Your task to perform on an android device: toggle improve location accuracy Image 0: 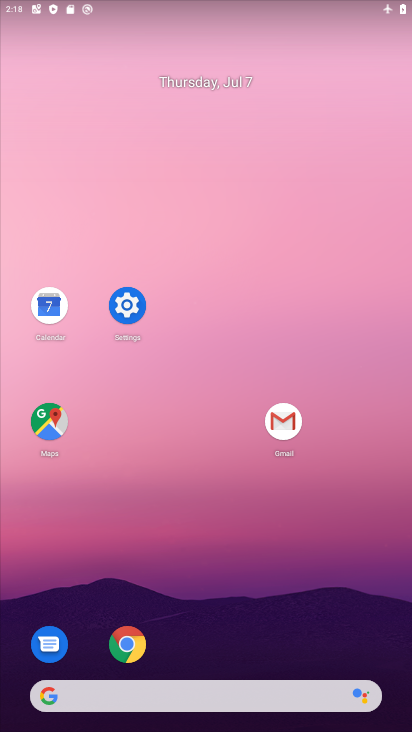
Step 0: drag from (403, 388) to (357, 137)
Your task to perform on an android device: toggle improve location accuracy Image 1: 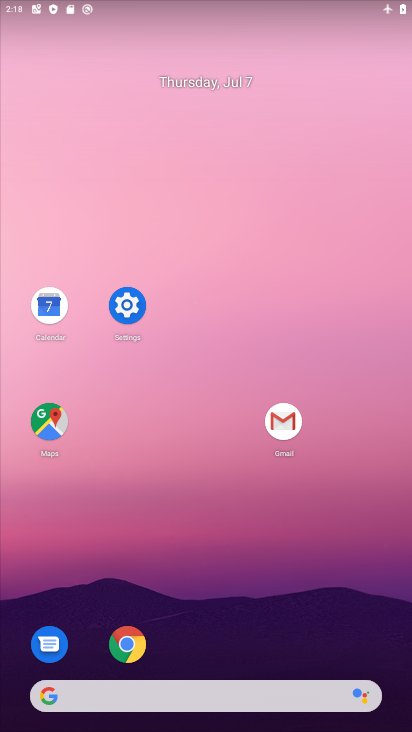
Step 1: click (137, 308)
Your task to perform on an android device: toggle improve location accuracy Image 2: 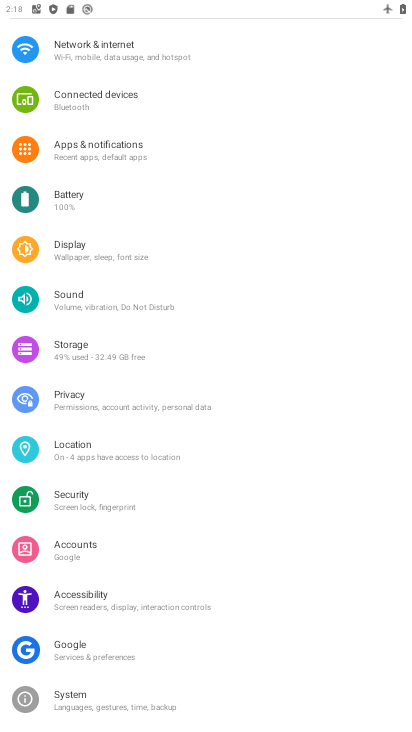
Step 2: click (86, 446)
Your task to perform on an android device: toggle improve location accuracy Image 3: 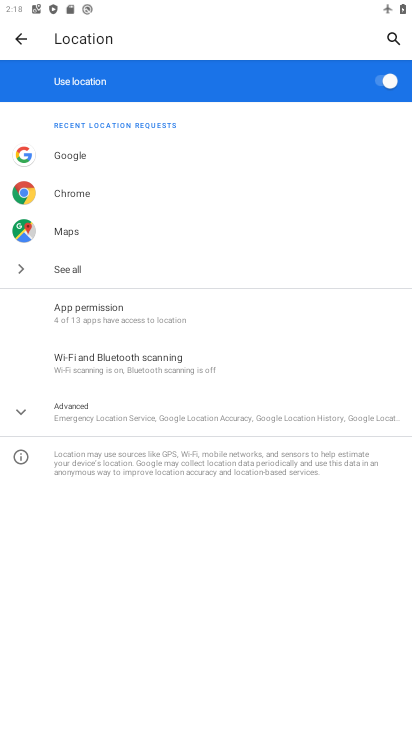
Step 3: click (33, 413)
Your task to perform on an android device: toggle improve location accuracy Image 4: 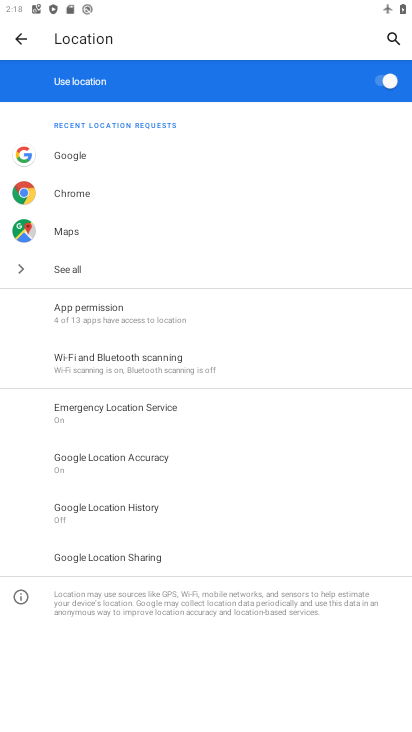
Step 4: click (127, 456)
Your task to perform on an android device: toggle improve location accuracy Image 5: 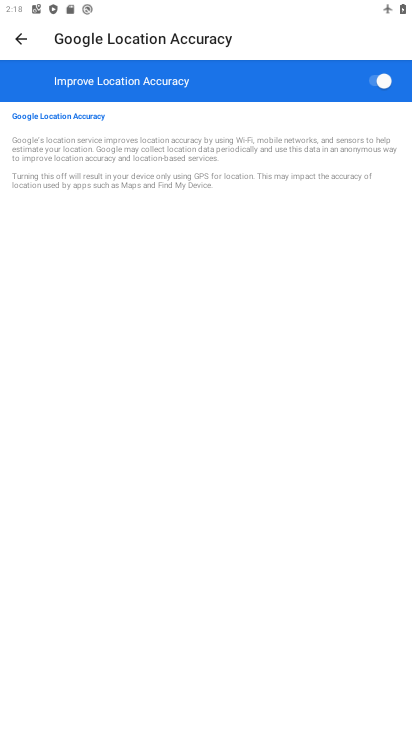
Step 5: click (382, 85)
Your task to perform on an android device: toggle improve location accuracy Image 6: 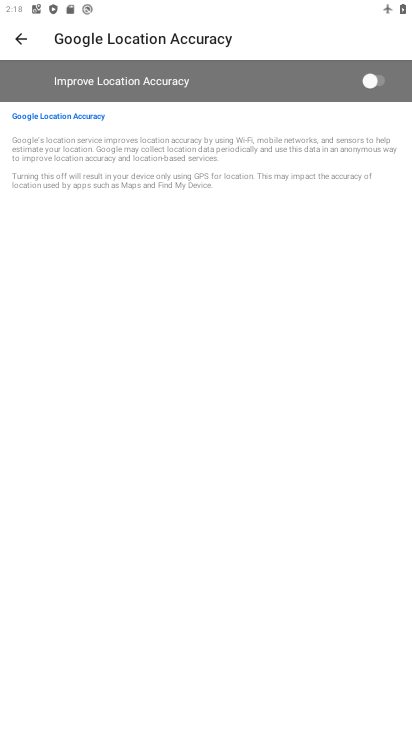
Step 6: task complete